Your task to perform on an android device: Go to accessibility settings Image 0: 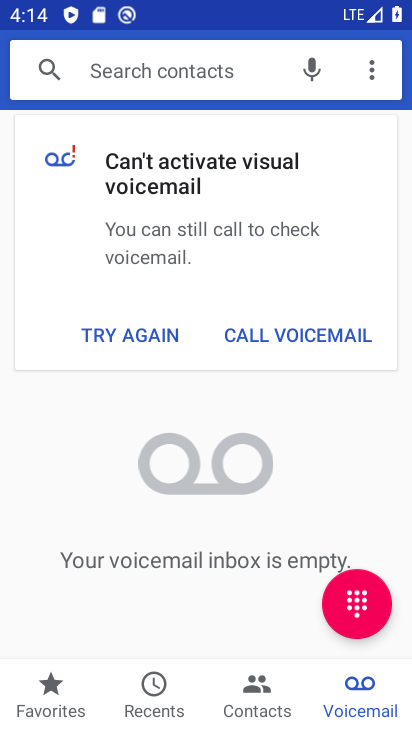
Step 0: press home button
Your task to perform on an android device: Go to accessibility settings Image 1: 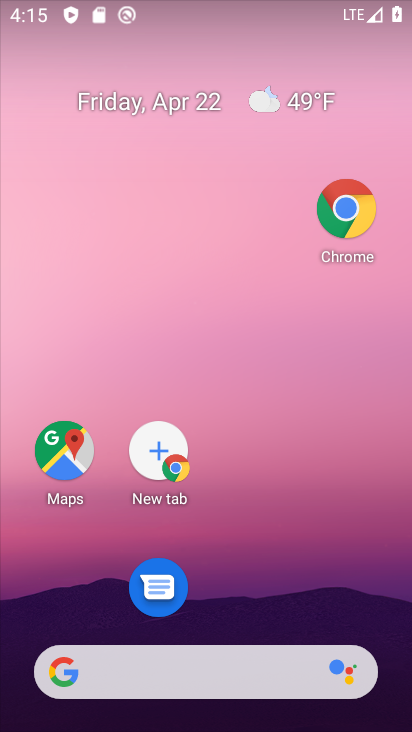
Step 1: drag from (244, 613) to (293, 9)
Your task to perform on an android device: Go to accessibility settings Image 2: 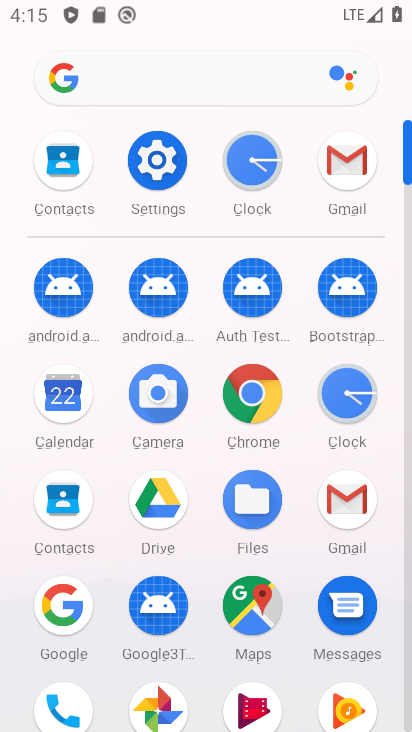
Step 2: click (149, 178)
Your task to perform on an android device: Go to accessibility settings Image 3: 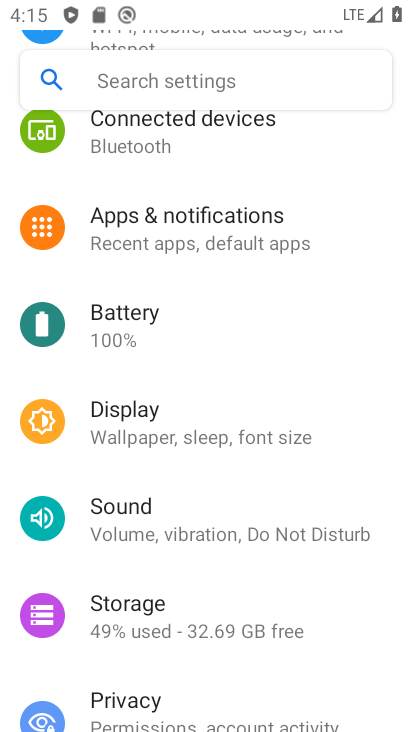
Step 3: drag from (151, 631) to (194, 183)
Your task to perform on an android device: Go to accessibility settings Image 4: 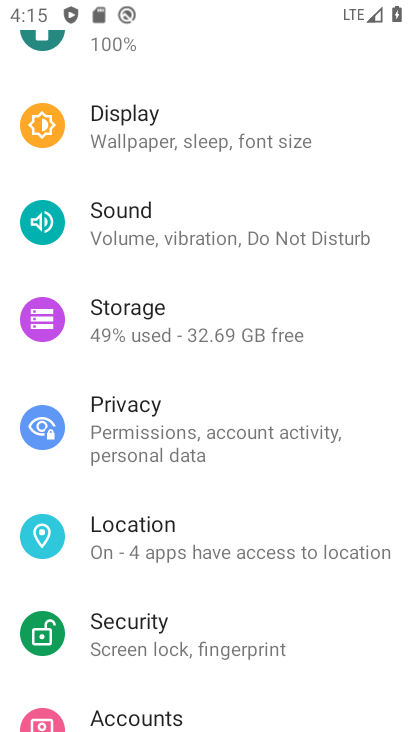
Step 4: drag from (102, 690) to (116, 175)
Your task to perform on an android device: Go to accessibility settings Image 5: 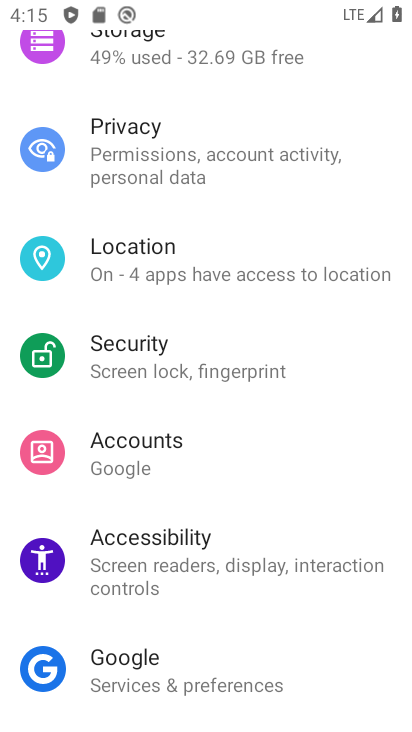
Step 5: click (182, 570)
Your task to perform on an android device: Go to accessibility settings Image 6: 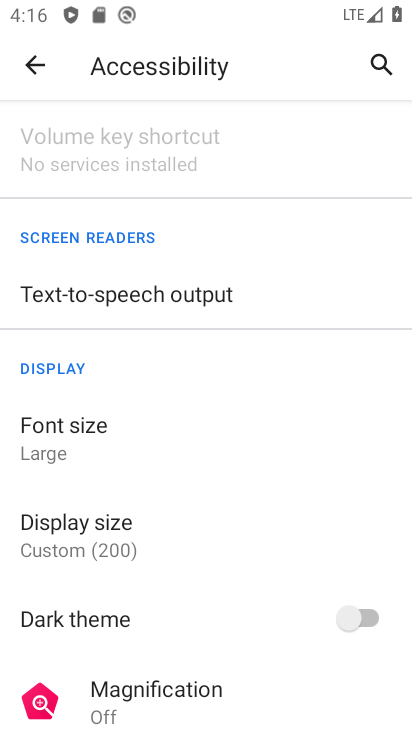
Step 6: task complete